Your task to perform on an android device: Clear all items from cart on newegg. Search for "acer predator" on newegg, select the first entry, add it to the cart, then select checkout. Image 0: 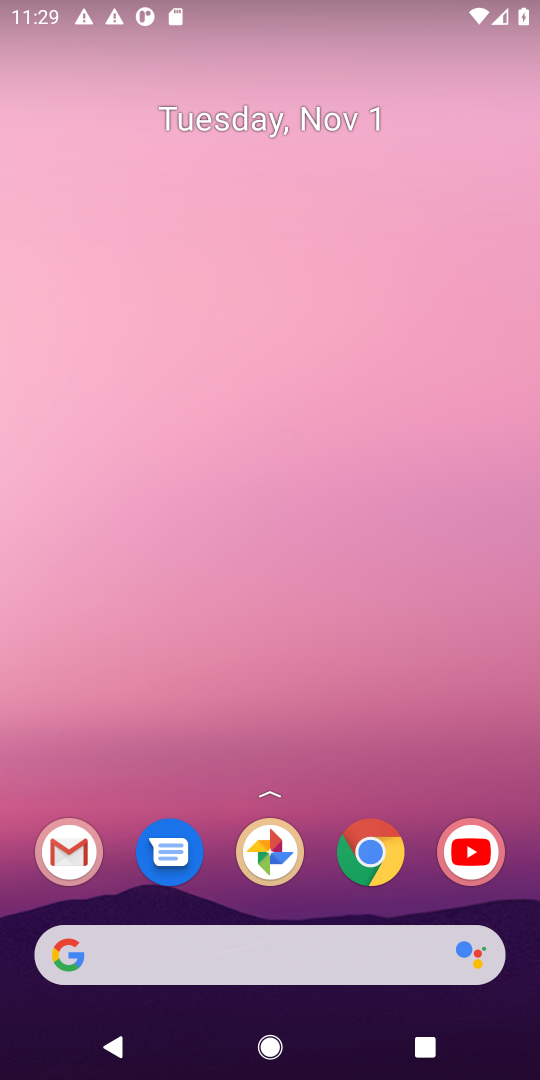
Step 0: click (56, 962)
Your task to perform on an android device: Clear all items from cart on newegg. Search for "acer predator" on newegg, select the first entry, add it to the cart, then select checkout. Image 1: 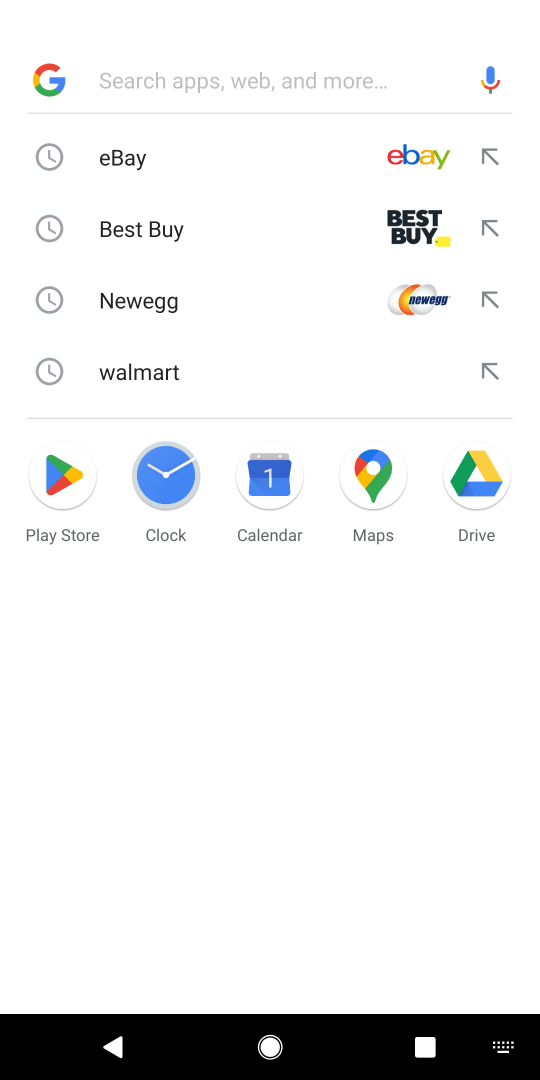
Step 1: click (143, 308)
Your task to perform on an android device: Clear all items from cart on newegg. Search for "acer predator" on newegg, select the first entry, add it to the cart, then select checkout. Image 2: 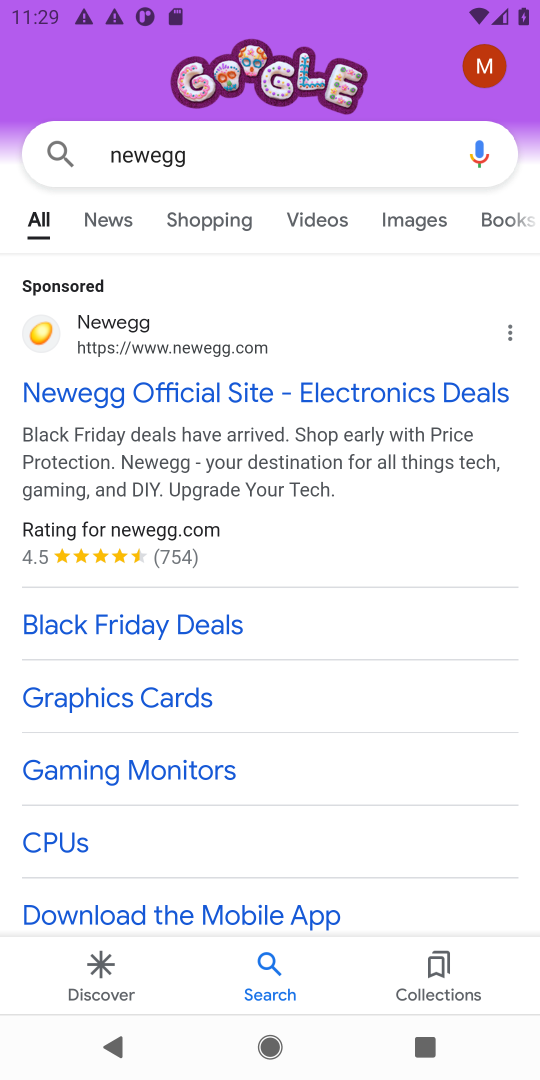
Step 2: click (157, 400)
Your task to perform on an android device: Clear all items from cart on newegg. Search for "acer predator" on newegg, select the first entry, add it to the cart, then select checkout. Image 3: 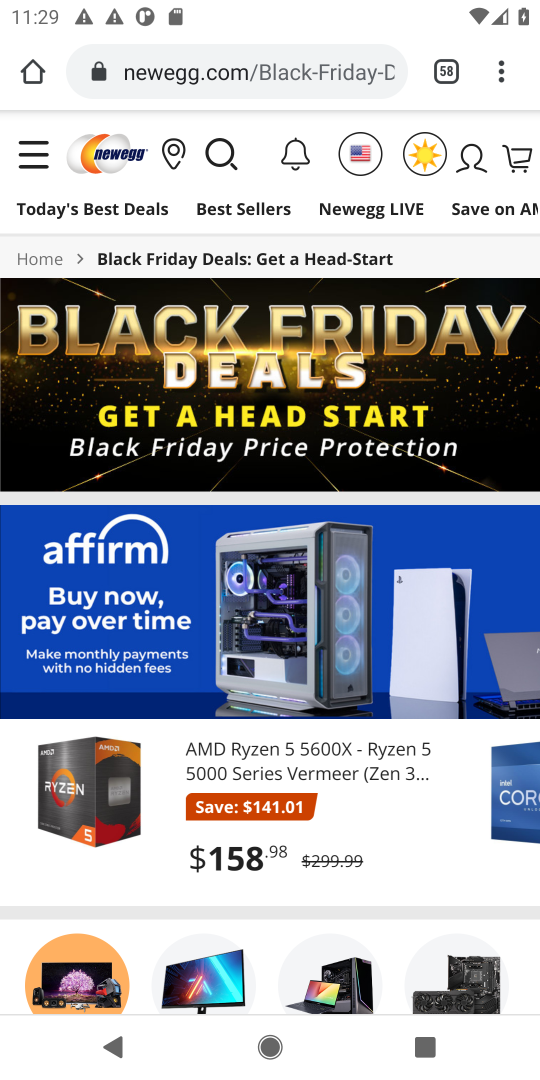
Step 3: click (209, 148)
Your task to perform on an android device: Clear all items from cart on newegg. Search for "acer predator" on newegg, select the first entry, add it to the cart, then select checkout. Image 4: 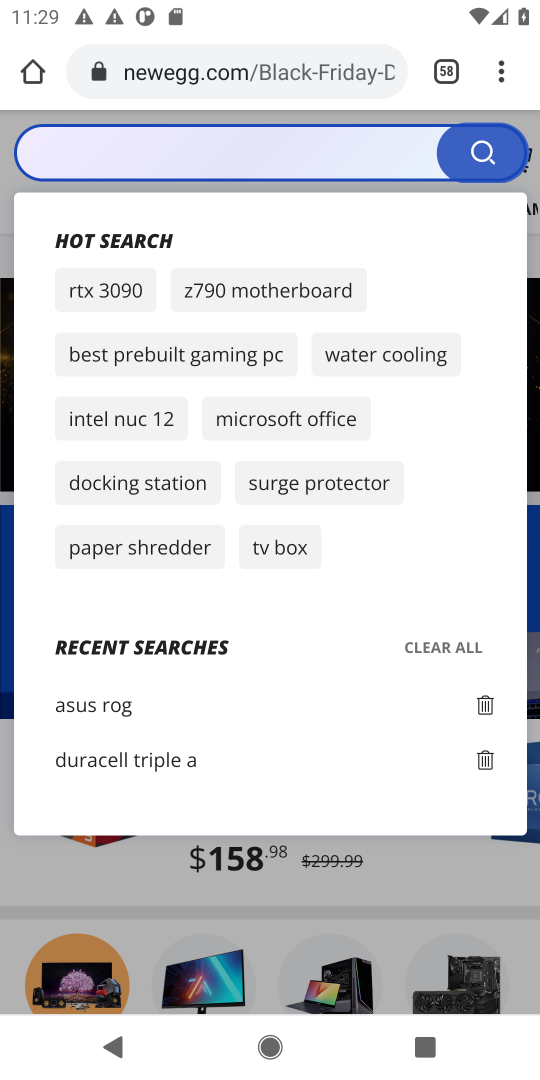
Step 4: type "acer predator"
Your task to perform on an android device: Clear all items from cart on newegg. Search for "acer predator" on newegg, select the first entry, add it to the cart, then select checkout. Image 5: 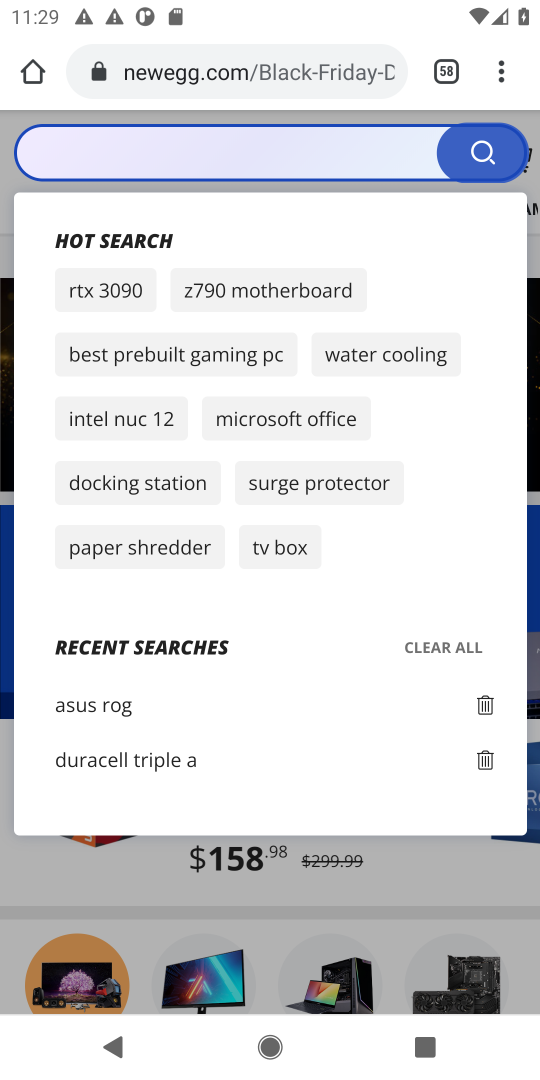
Step 5: click (149, 150)
Your task to perform on an android device: Clear all items from cart on newegg. Search for "acer predator" on newegg, select the first entry, add it to the cart, then select checkout. Image 6: 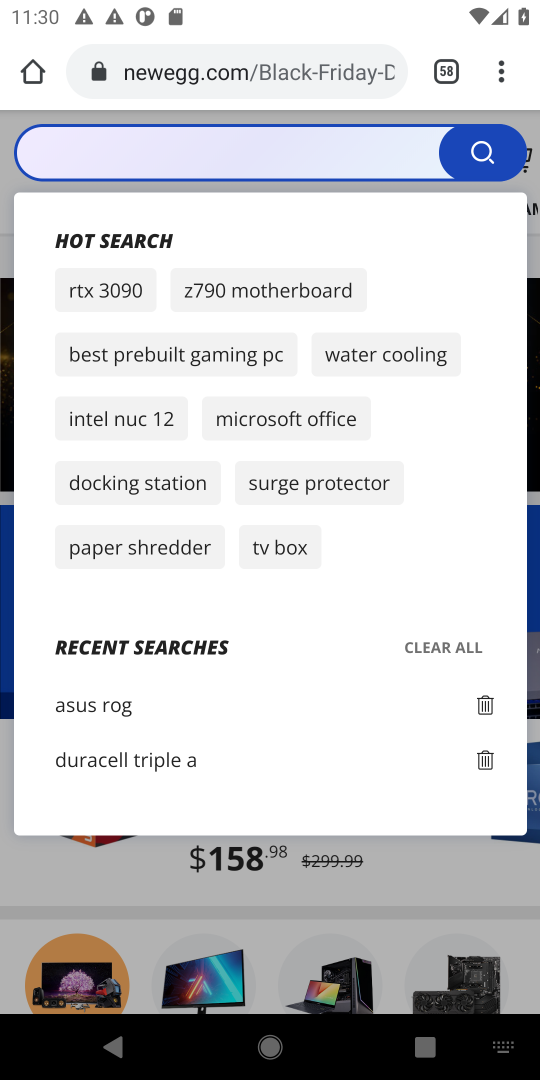
Step 6: type "acer predator"
Your task to perform on an android device: Clear all items from cart on newegg. Search for "acer predator" on newegg, select the first entry, add it to the cart, then select checkout. Image 7: 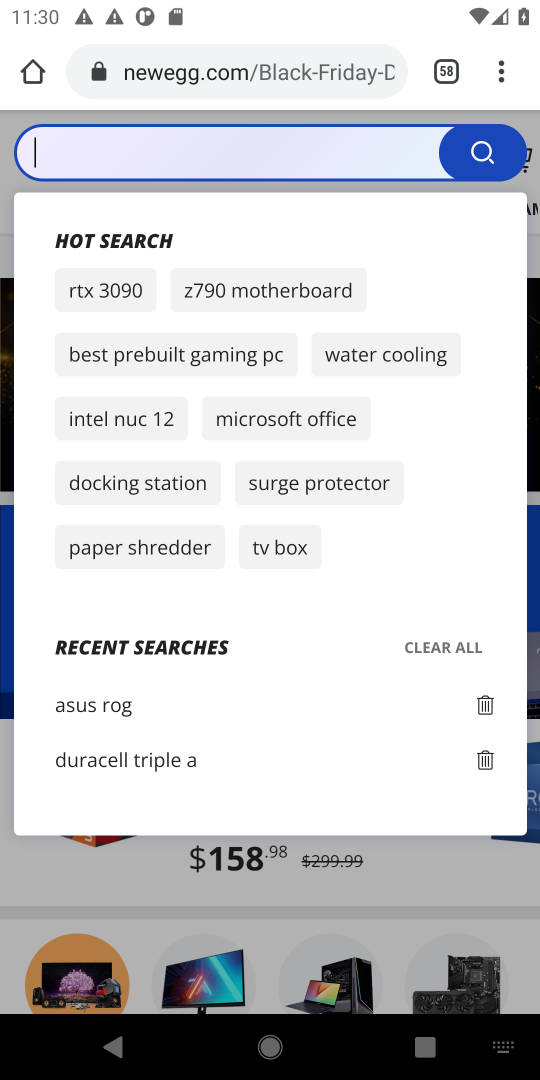
Step 7: click (202, 152)
Your task to perform on an android device: Clear all items from cart on newegg. Search for "acer predator" on newegg, select the first entry, add it to the cart, then select checkout. Image 8: 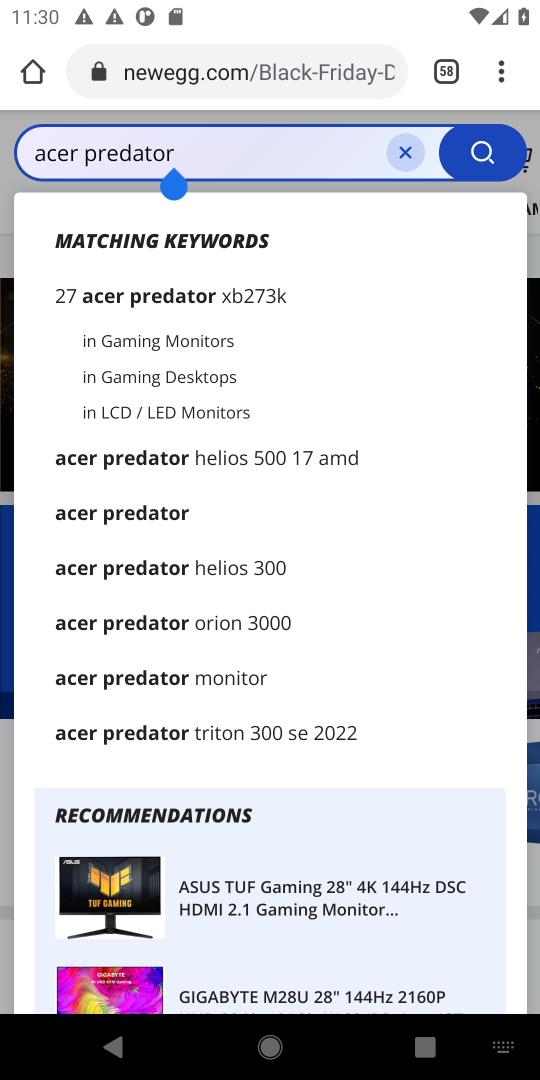
Step 8: press enter
Your task to perform on an android device: Clear all items from cart on newegg. Search for "acer predator" on newegg, select the first entry, add it to the cart, then select checkout. Image 9: 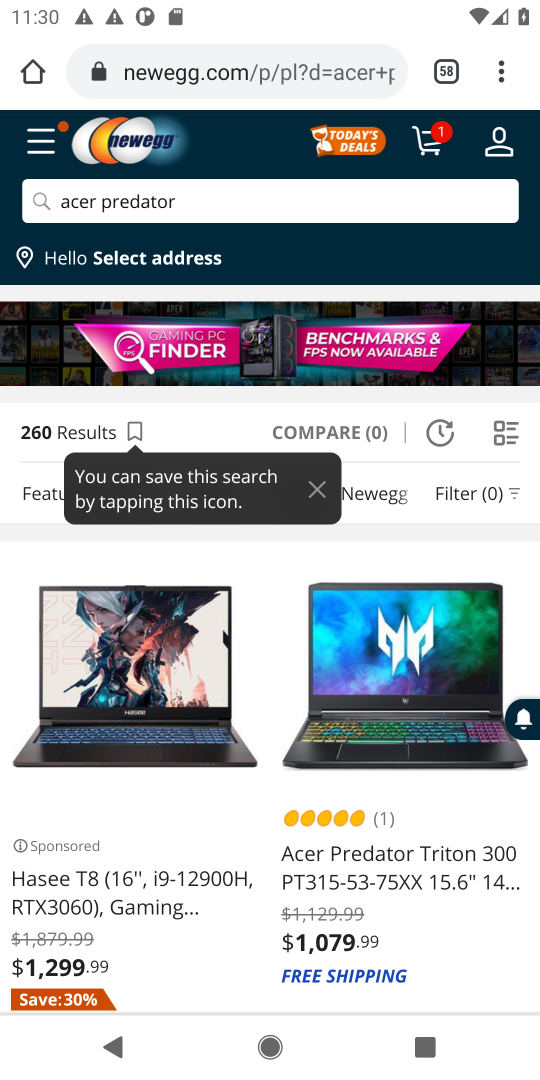
Step 9: click (424, 855)
Your task to perform on an android device: Clear all items from cart on newegg. Search for "acer predator" on newegg, select the first entry, add it to the cart, then select checkout. Image 10: 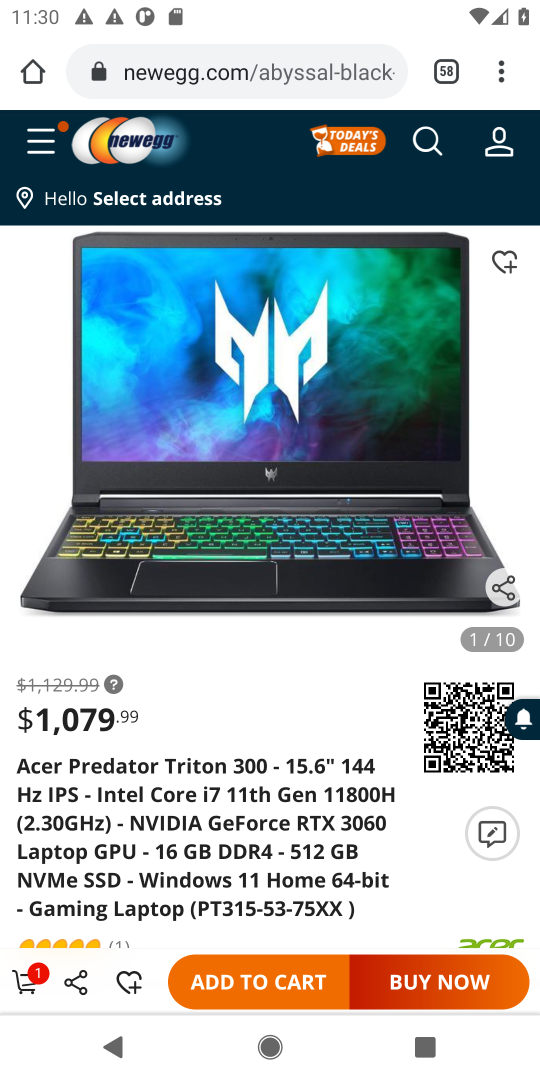
Step 10: click (254, 983)
Your task to perform on an android device: Clear all items from cart on newegg. Search for "acer predator" on newegg, select the first entry, add it to the cart, then select checkout. Image 11: 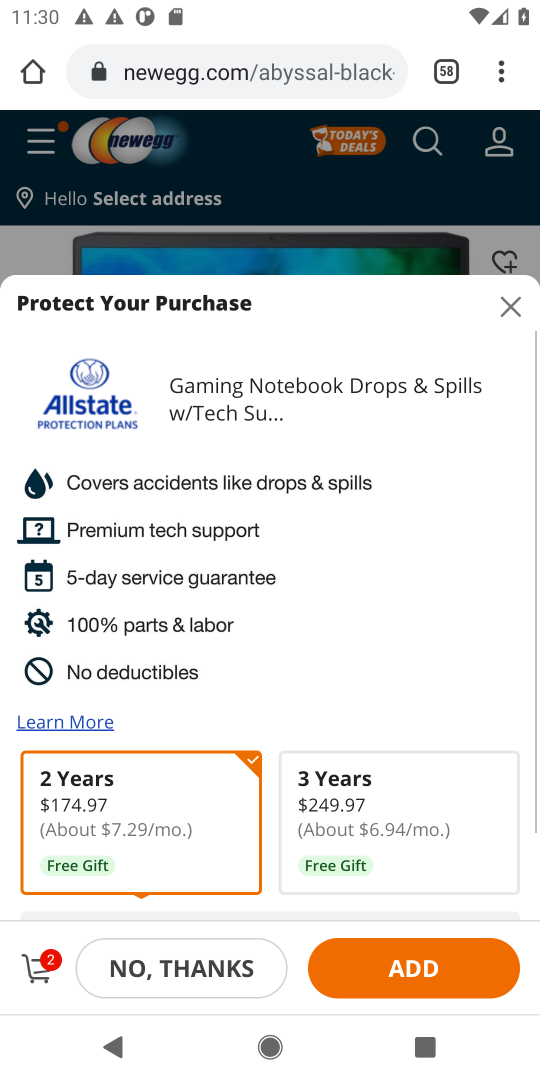
Step 11: click (41, 969)
Your task to perform on an android device: Clear all items from cart on newegg. Search for "acer predator" on newegg, select the first entry, add it to the cart, then select checkout. Image 12: 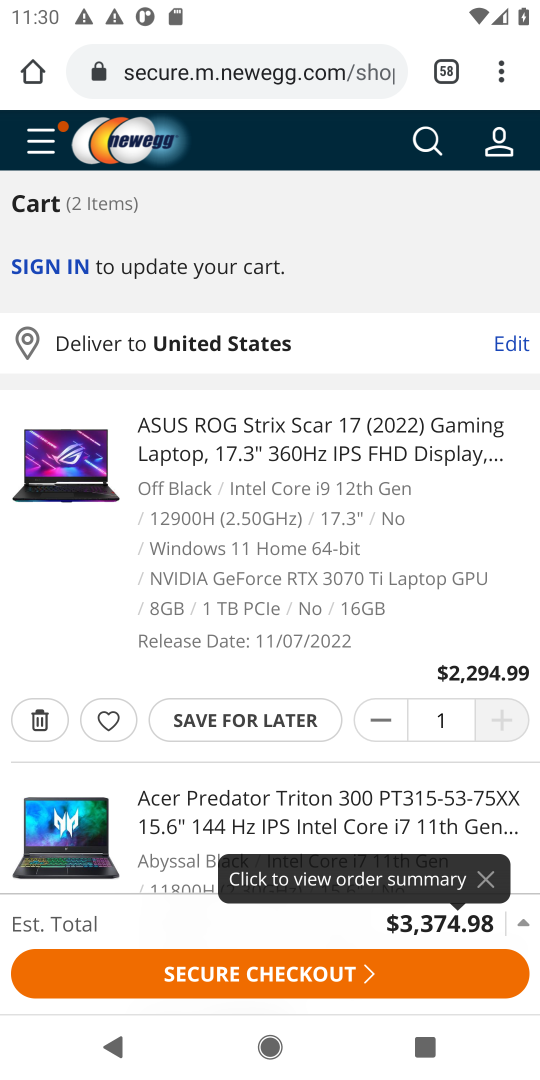
Step 12: click (35, 718)
Your task to perform on an android device: Clear all items from cart on newegg. Search for "acer predator" on newegg, select the first entry, add it to the cart, then select checkout. Image 13: 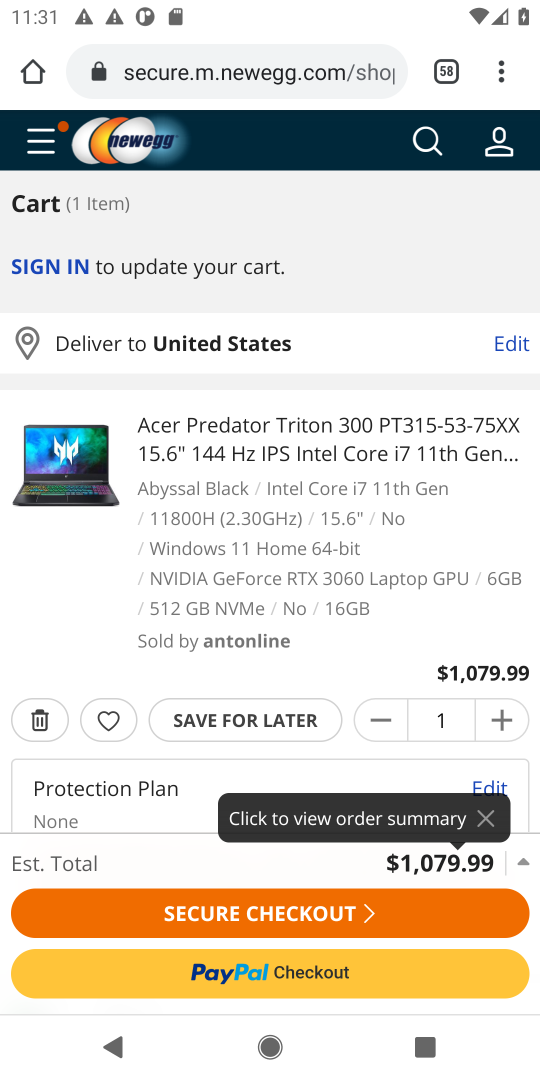
Step 13: click (294, 916)
Your task to perform on an android device: Clear all items from cart on newegg. Search for "acer predator" on newegg, select the first entry, add it to the cart, then select checkout. Image 14: 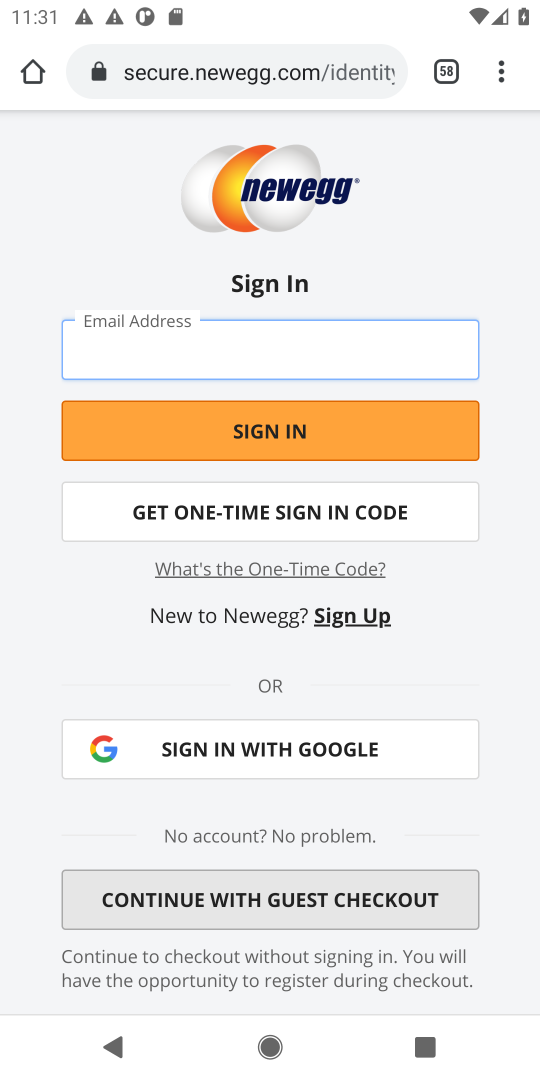
Step 14: task complete